Your task to perform on an android device: Open wifi settings Image 0: 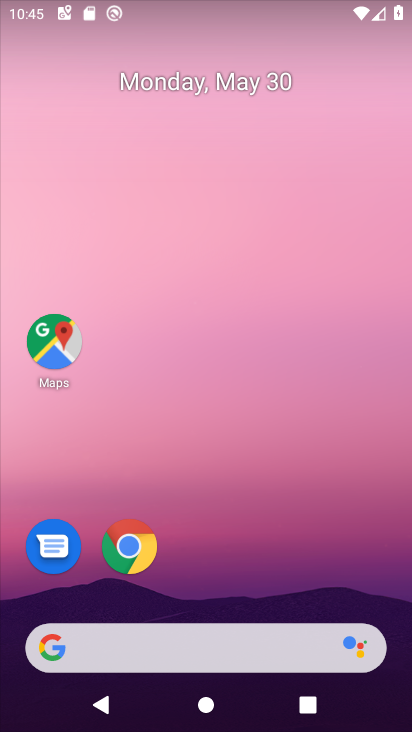
Step 0: drag from (206, 579) to (246, 220)
Your task to perform on an android device: Open wifi settings Image 1: 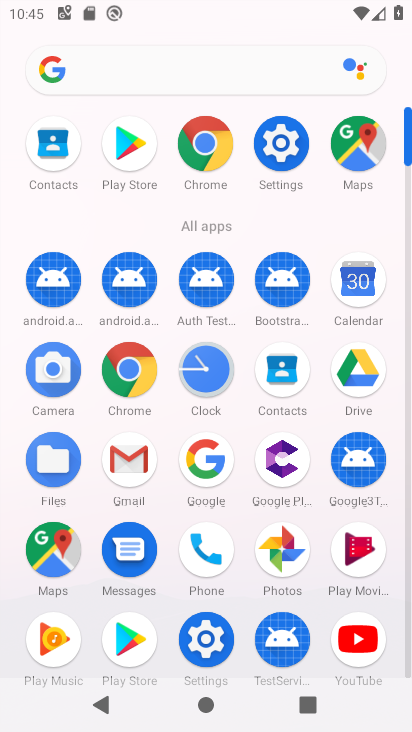
Step 1: click (281, 145)
Your task to perform on an android device: Open wifi settings Image 2: 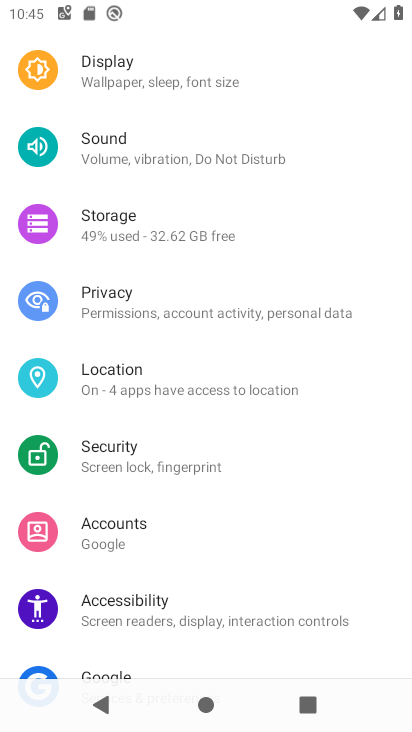
Step 2: drag from (215, 205) to (195, 411)
Your task to perform on an android device: Open wifi settings Image 3: 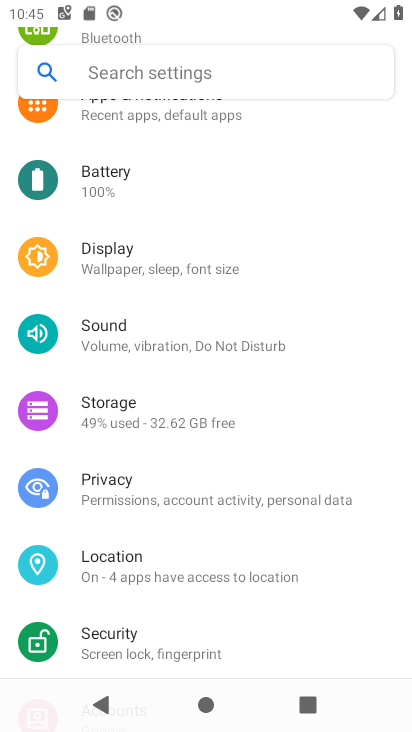
Step 3: drag from (207, 220) to (201, 671)
Your task to perform on an android device: Open wifi settings Image 4: 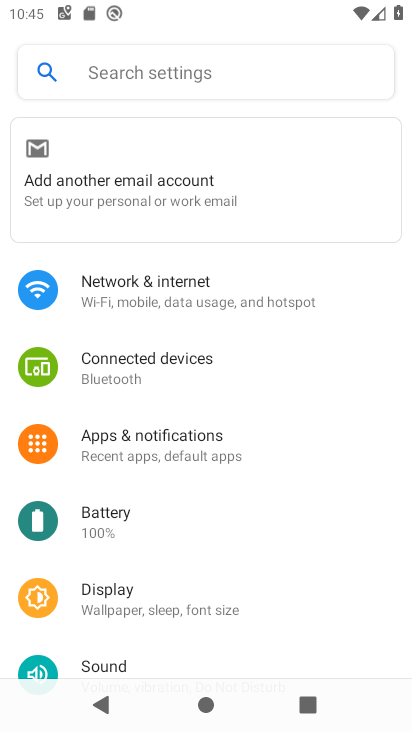
Step 4: click (194, 283)
Your task to perform on an android device: Open wifi settings Image 5: 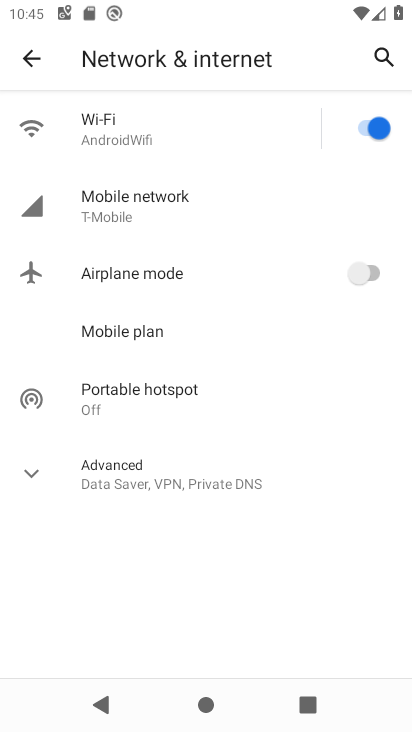
Step 5: click (150, 133)
Your task to perform on an android device: Open wifi settings Image 6: 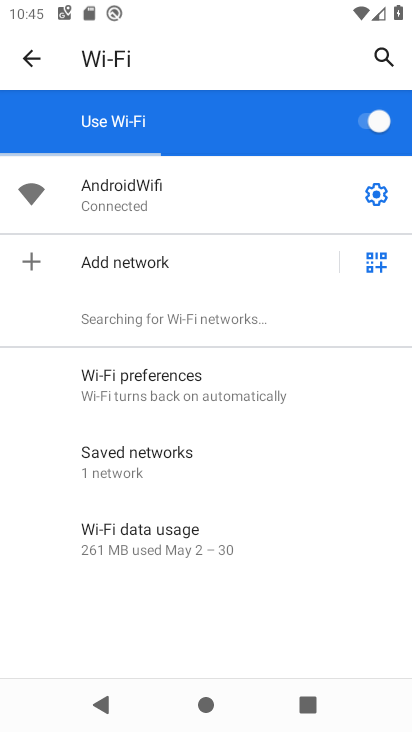
Step 6: task complete